Your task to perform on an android device: open the mobile data screen to see how much data has been used Image 0: 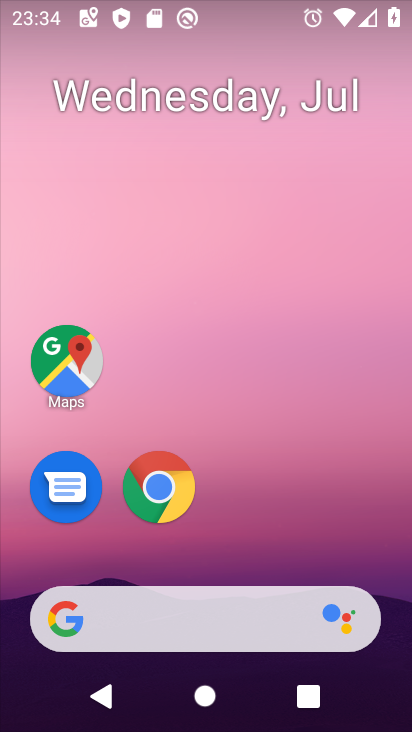
Step 0: drag from (315, 578) to (284, 21)
Your task to perform on an android device: open the mobile data screen to see how much data has been used Image 1: 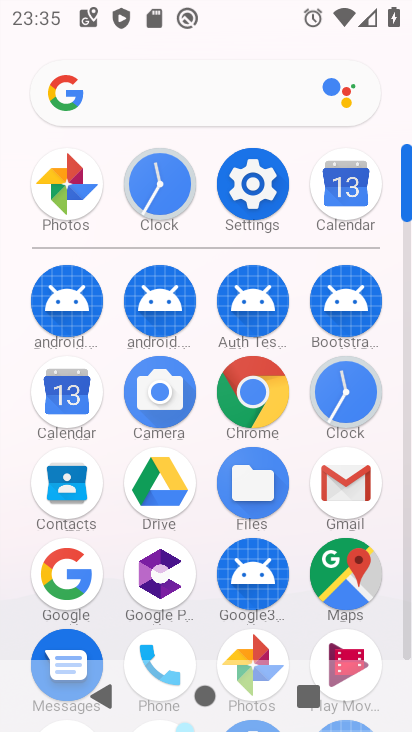
Step 1: click (243, 175)
Your task to perform on an android device: open the mobile data screen to see how much data has been used Image 2: 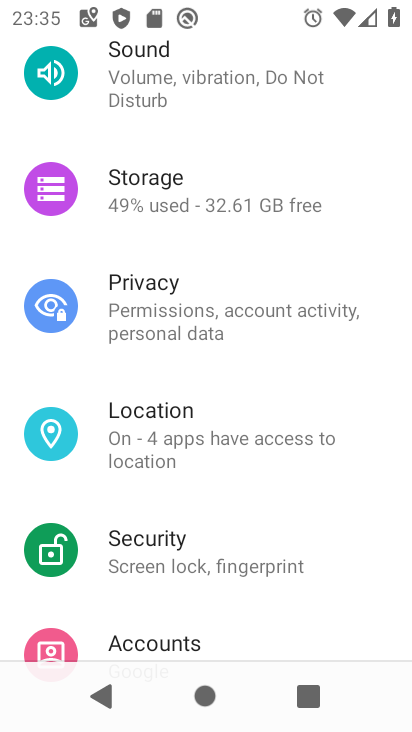
Step 2: drag from (234, 143) to (223, 610)
Your task to perform on an android device: open the mobile data screen to see how much data has been used Image 3: 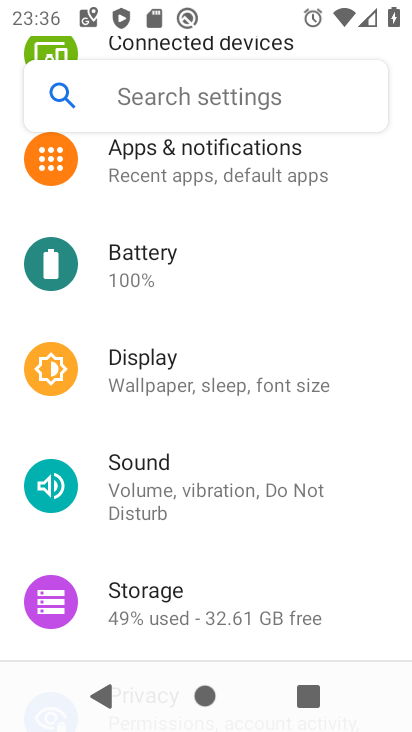
Step 3: drag from (174, 237) to (187, 721)
Your task to perform on an android device: open the mobile data screen to see how much data has been used Image 4: 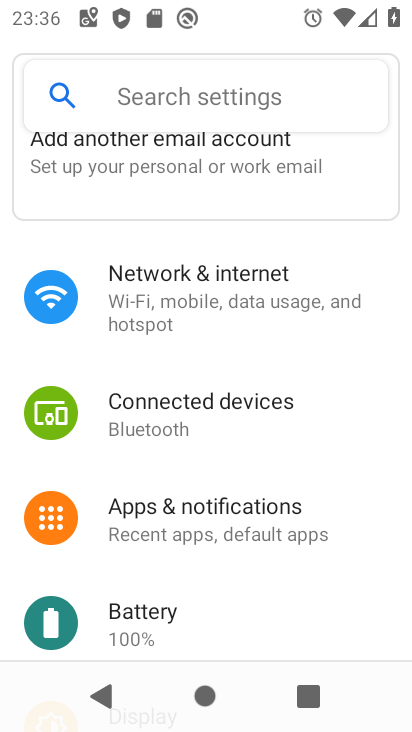
Step 4: click (189, 310)
Your task to perform on an android device: open the mobile data screen to see how much data has been used Image 5: 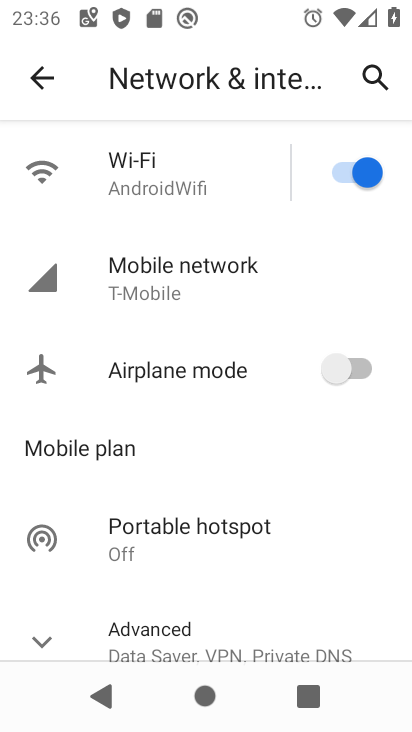
Step 5: click (157, 275)
Your task to perform on an android device: open the mobile data screen to see how much data has been used Image 6: 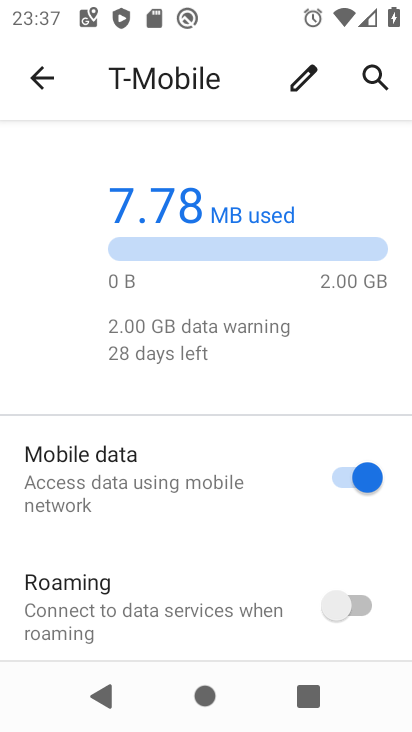
Step 6: task complete